Your task to perform on an android device: Open the web browser Image 0: 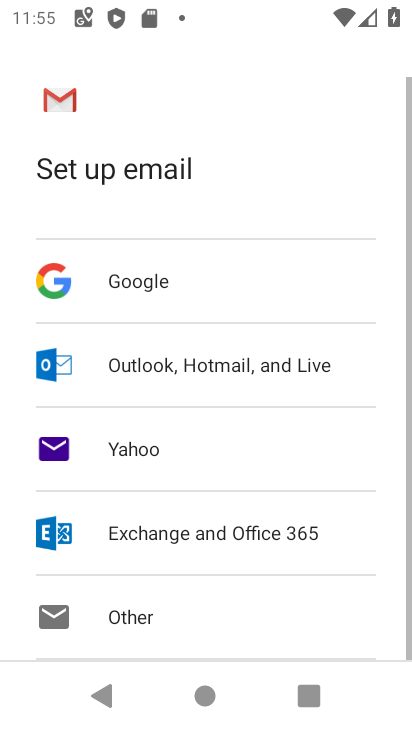
Step 0: press home button
Your task to perform on an android device: Open the web browser Image 1: 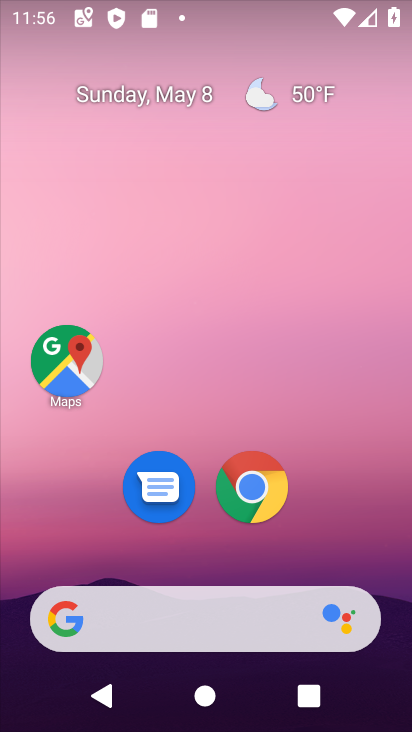
Step 1: click (245, 496)
Your task to perform on an android device: Open the web browser Image 2: 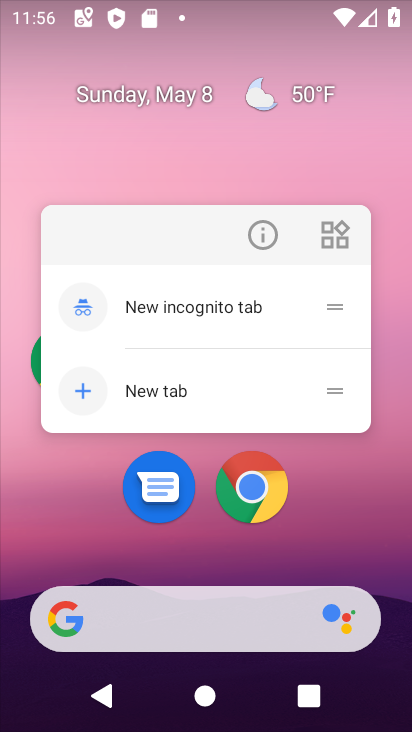
Step 2: click (259, 515)
Your task to perform on an android device: Open the web browser Image 3: 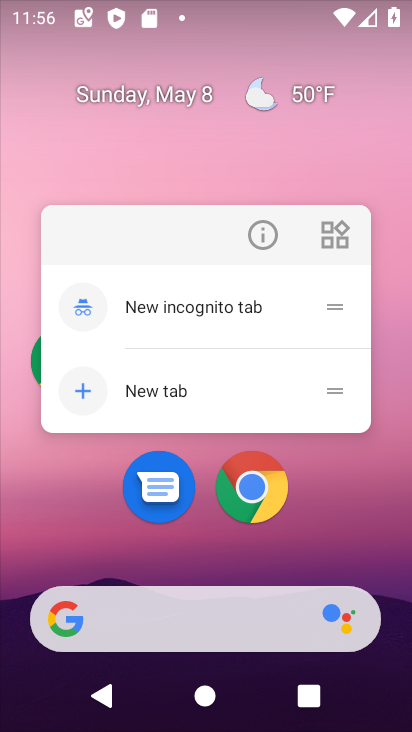
Step 3: click (259, 512)
Your task to perform on an android device: Open the web browser Image 4: 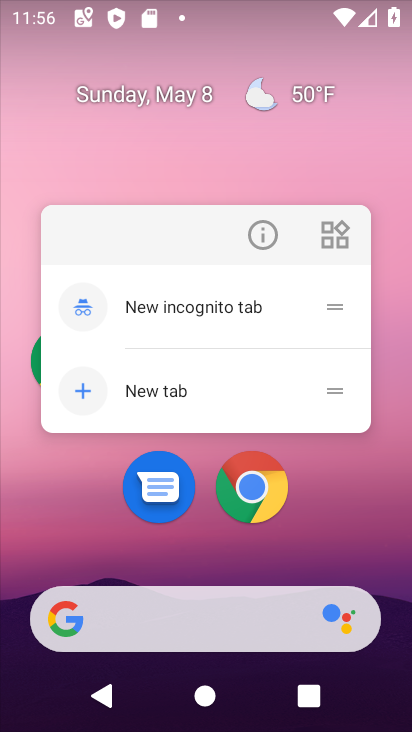
Step 4: click (269, 508)
Your task to perform on an android device: Open the web browser Image 5: 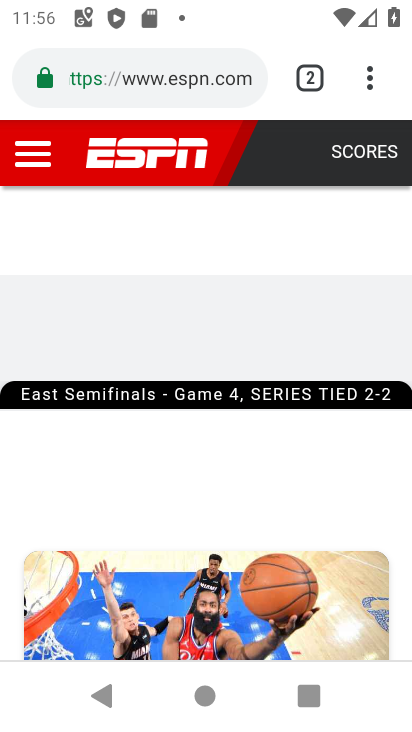
Step 5: task complete